Your task to perform on an android device: Search for seafood restaurants on Google Maps Image 0: 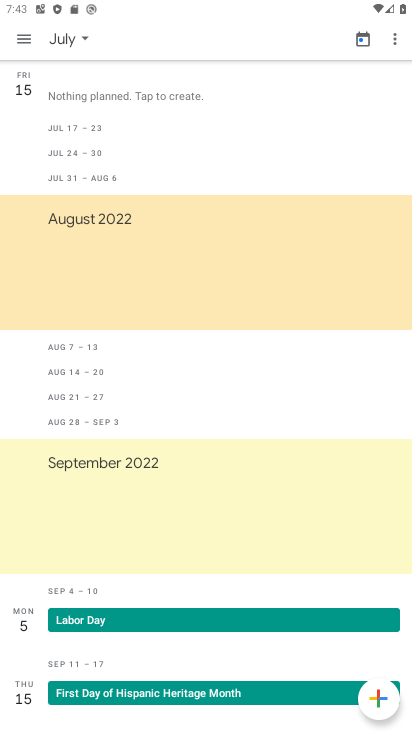
Step 0: press home button
Your task to perform on an android device: Search for seafood restaurants on Google Maps Image 1: 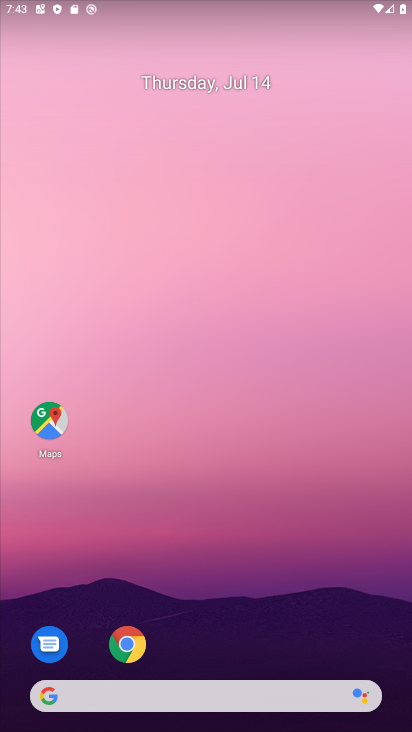
Step 1: click (42, 413)
Your task to perform on an android device: Search for seafood restaurants on Google Maps Image 2: 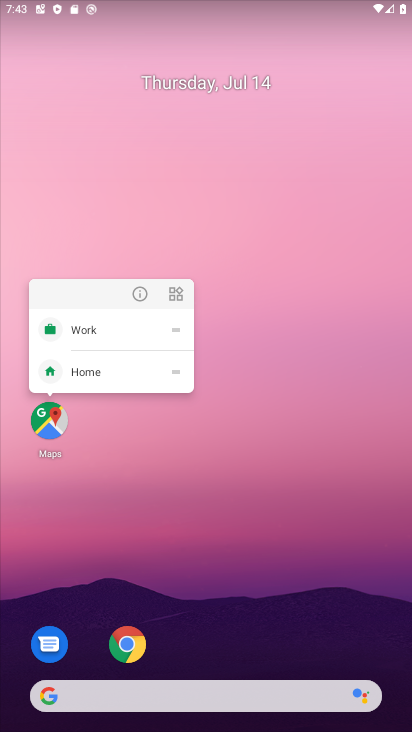
Step 2: click (53, 420)
Your task to perform on an android device: Search for seafood restaurants on Google Maps Image 3: 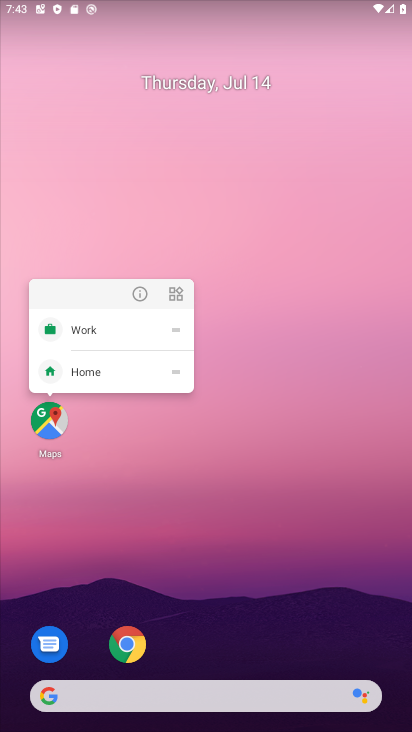
Step 3: click (48, 424)
Your task to perform on an android device: Search for seafood restaurants on Google Maps Image 4: 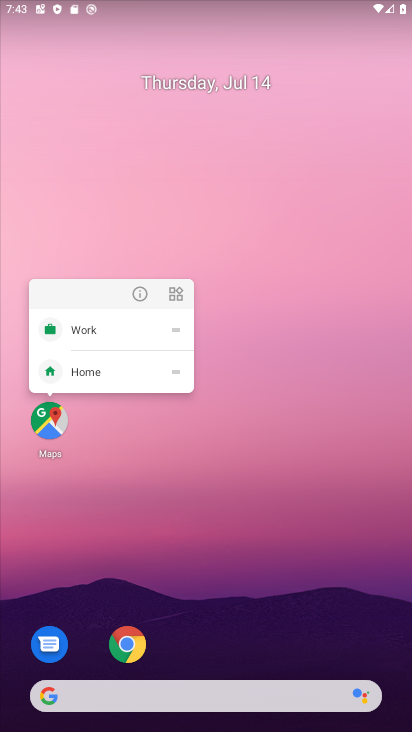
Step 4: click (48, 420)
Your task to perform on an android device: Search for seafood restaurants on Google Maps Image 5: 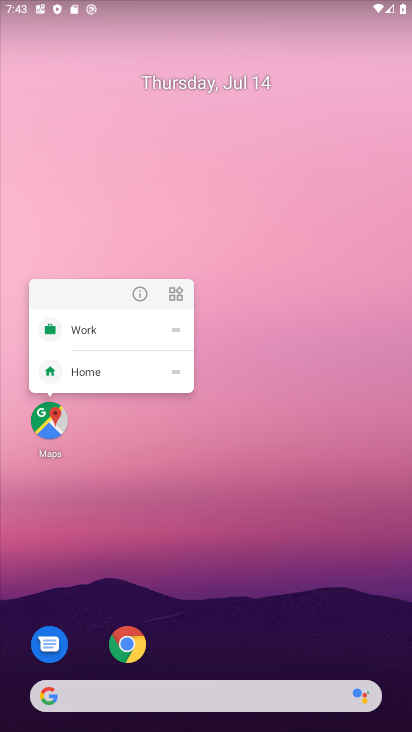
Step 5: click (50, 420)
Your task to perform on an android device: Search for seafood restaurants on Google Maps Image 6: 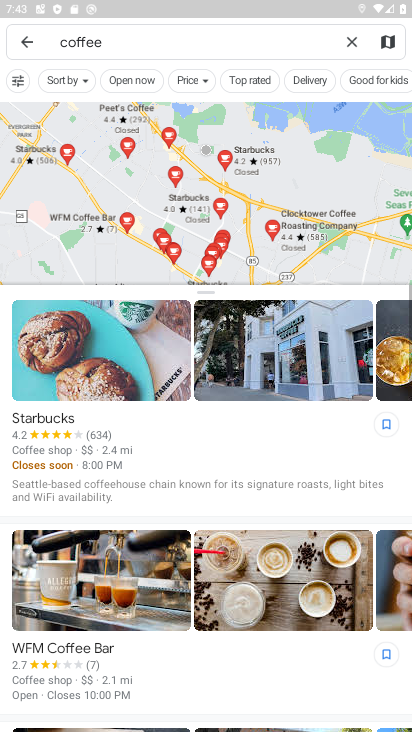
Step 6: click (350, 36)
Your task to perform on an android device: Search for seafood restaurants on Google Maps Image 7: 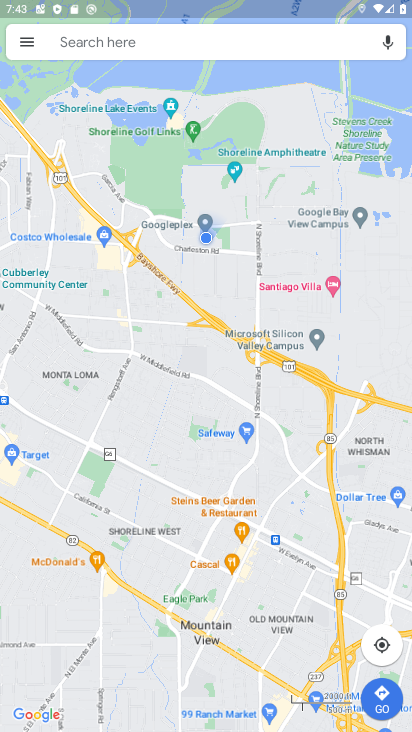
Step 7: click (139, 44)
Your task to perform on an android device: Search for seafood restaurants on Google Maps Image 8: 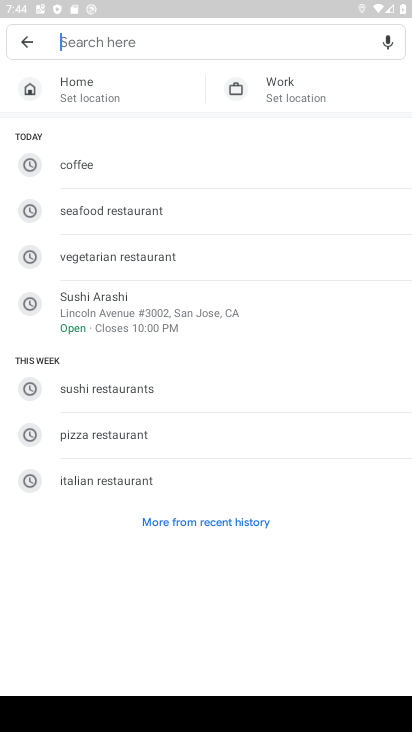
Step 8: click (110, 210)
Your task to perform on an android device: Search for seafood restaurants on Google Maps Image 9: 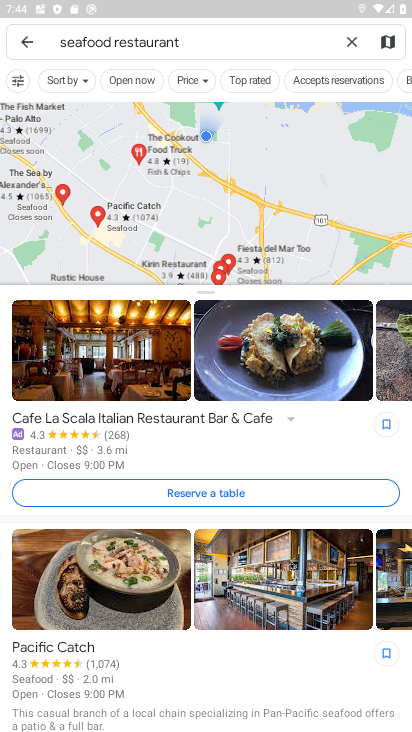
Step 9: task complete